Your task to perform on an android device: check battery use Image 0: 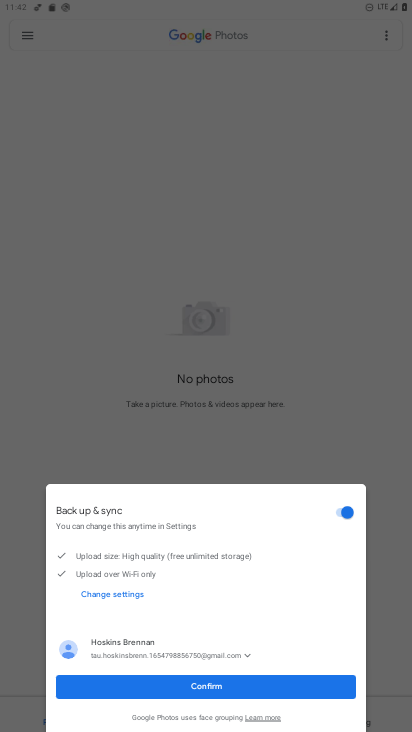
Step 0: press home button
Your task to perform on an android device: check battery use Image 1: 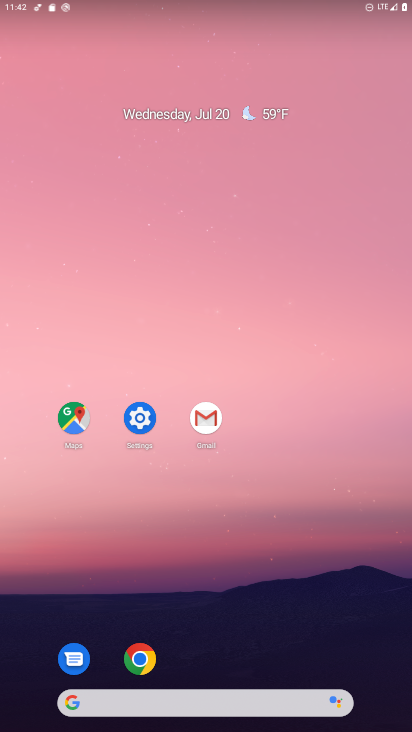
Step 1: click (139, 416)
Your task to perform on an android device: check battery use Image 2: 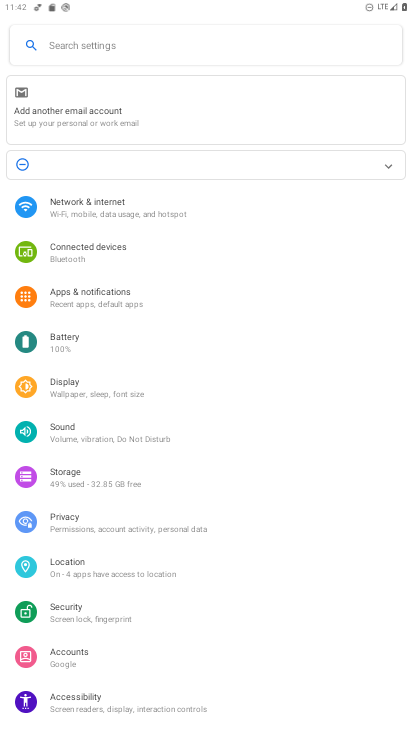
Step 2: click (70, 345)
Your task to perform on an android device: check battery use Image 3: 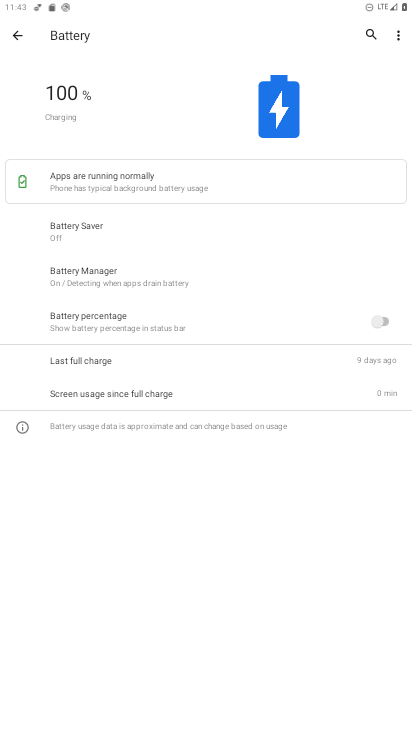
Step 3: task complete